Your task to perform on an android device: open a new tab in the chrome app Image 0: 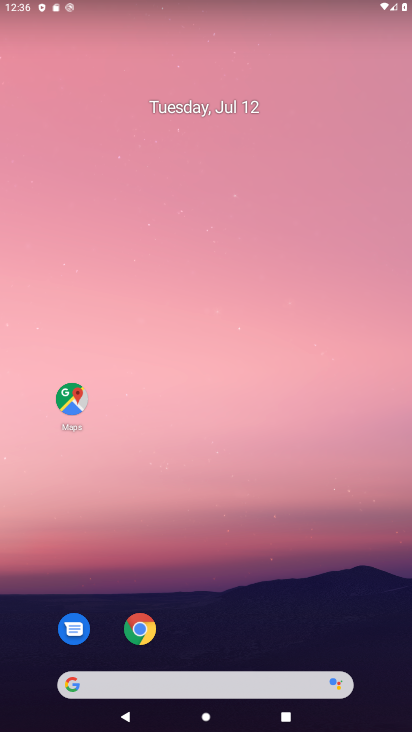
Step 0: drag from (327, 18) to (384, 23)
Your task to perform on an android device: open a new tab in the chrome app Image 1: 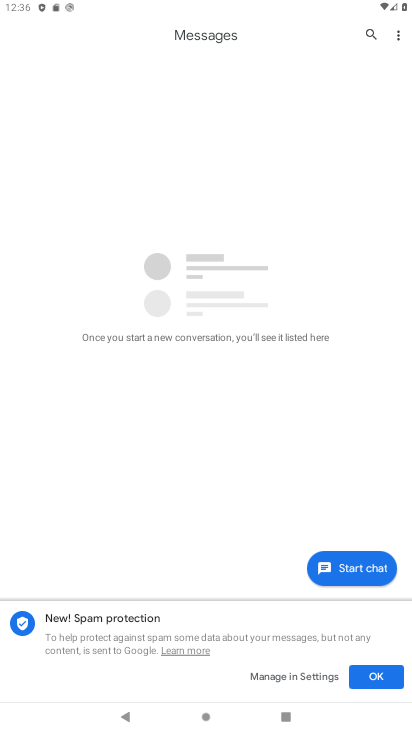
Step 1: press home button
Your task to perform on an android device: open a new tab in the chrome app Image 2: 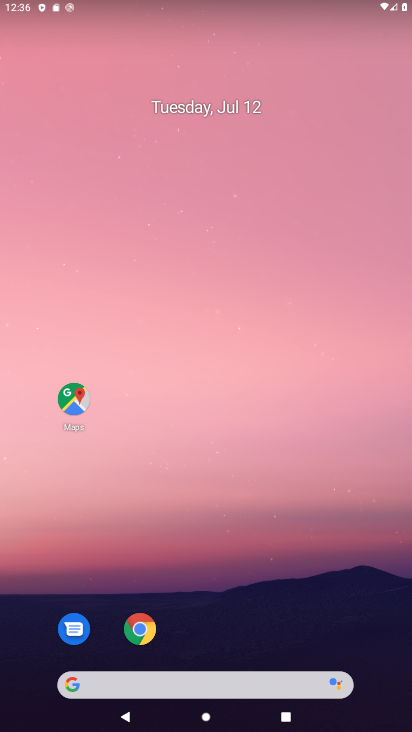
Step 2: click (144, 626)
Your task to perform on an android device: open a new tab in the chrome app Image 3: 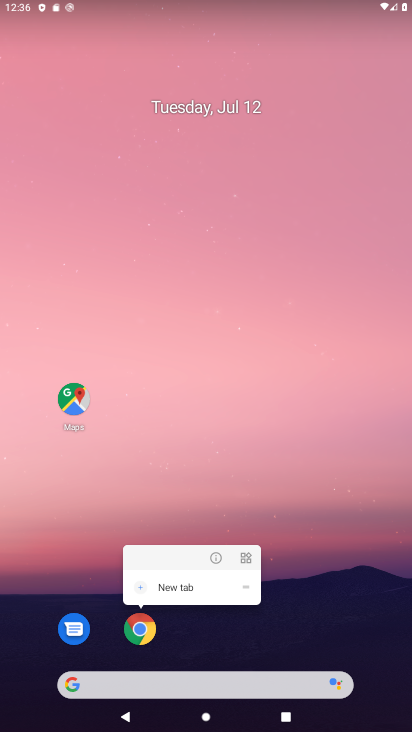
Step 3: click (140, 637)
Your task to perform on an android device: open a new tab in the chrome app Image 4: 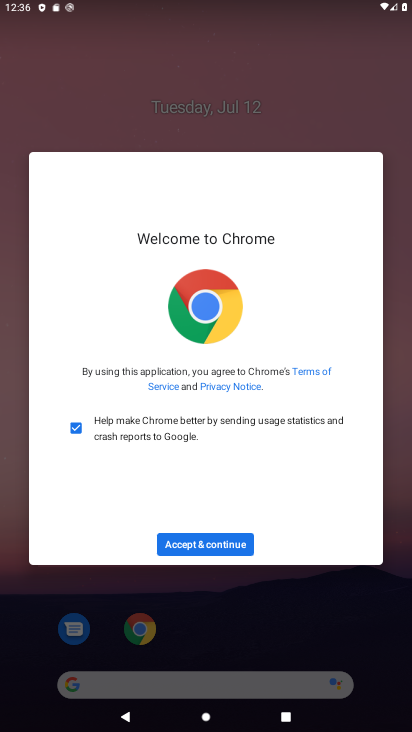
Step 4: click (208, 536)
Your task to perform on an android device: open a new tab in the chrome app Image 5: 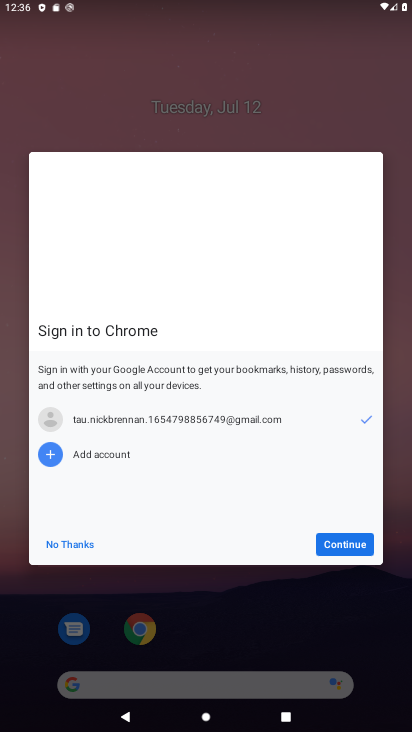
Step 5: click (345, 537)
Your task to perform on an android device: open a new tab in the chrome app Image 6: 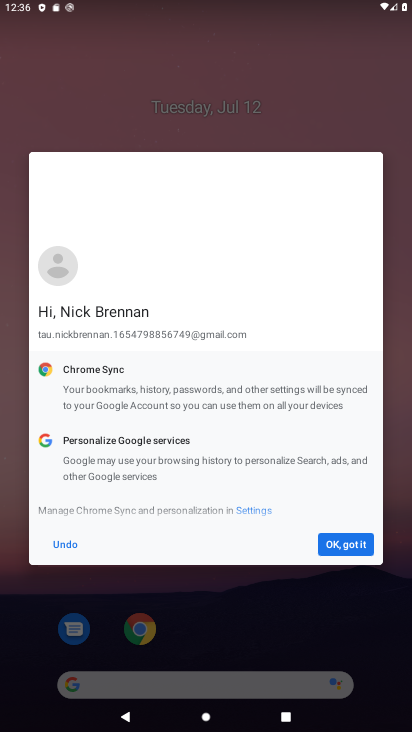
Step 6: click (346, 545)
Your task to perform on an android device: open a new tab in the chrome app Image 7: 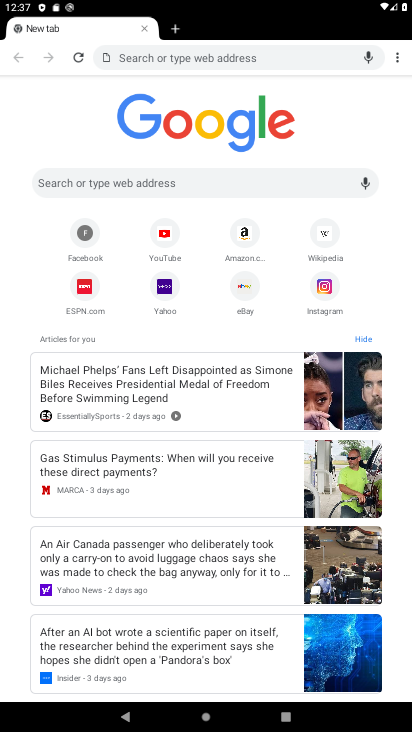
Step 7: click (177, 26)
Your task to perform on an android device: open a new tab in the chrome app Image 8: 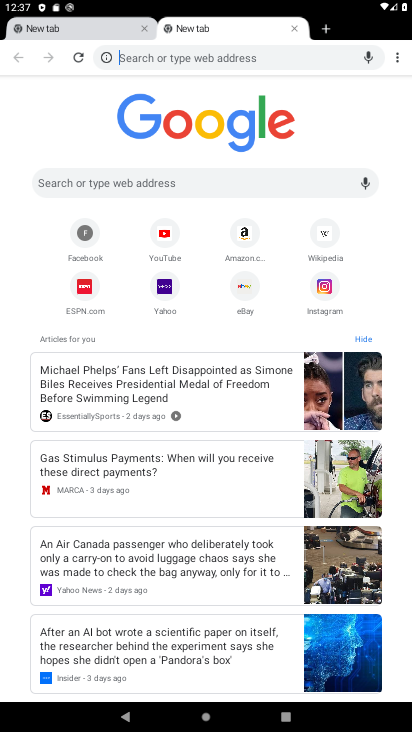
Step 8: task complete